Your task to perform on an android device: Open network settings Image 0: 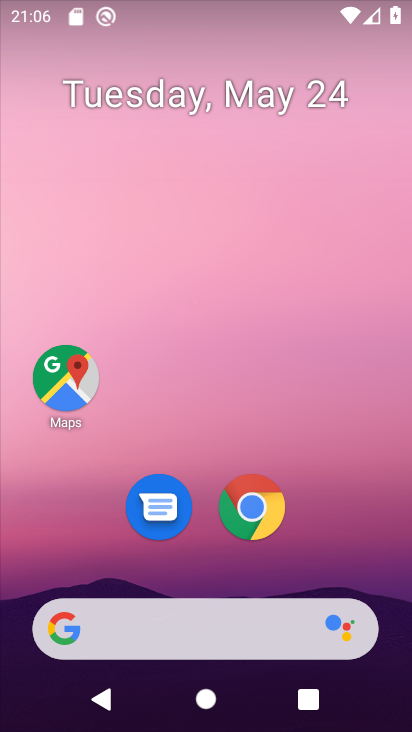
Step 0: drag from (219, 519) to (227, 19)
Your task to perform on an android device: Open network settings Image 1: 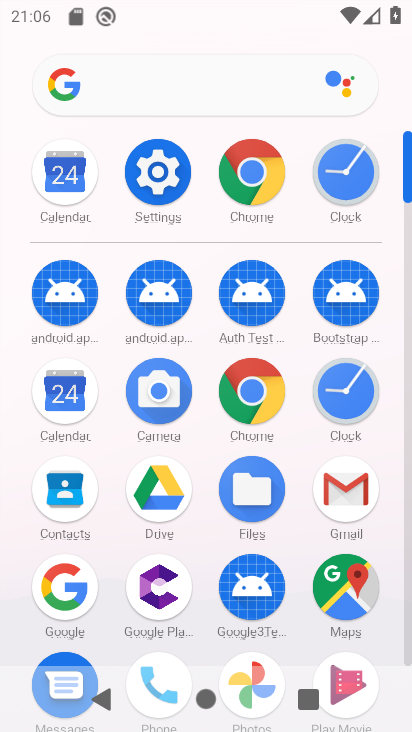
Step 1: click (160, 207)
Your task to perform on an android device: Open network settings Image 2: 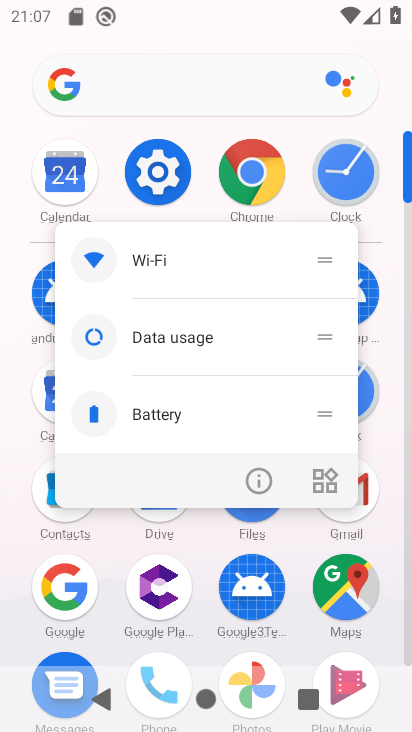
Step 2: click (278, 470)
Your task to perform on an android device: Open network settings Image 3: 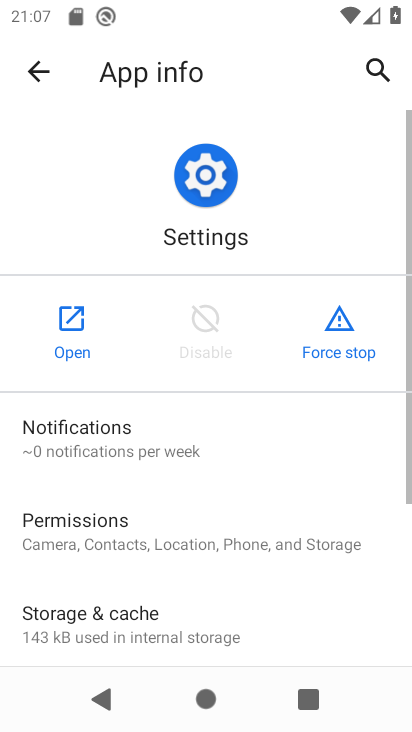
Step 3: click (39, 334)
Your task to perform on an android device: Open network settings Image 4: 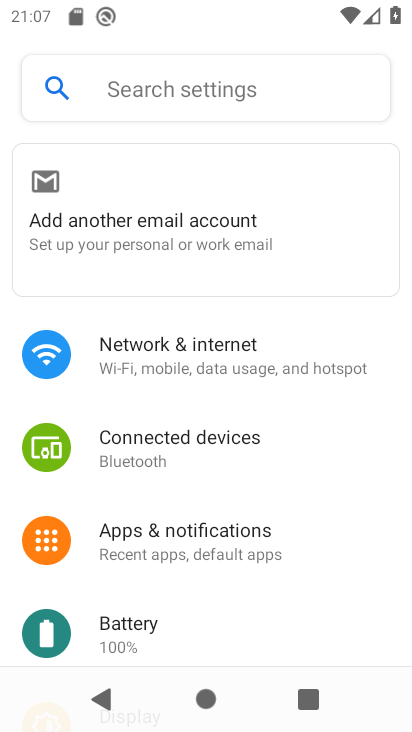
Step 4: click (170, 346)
Your task to perform on an android device: Open network settings Image 5: 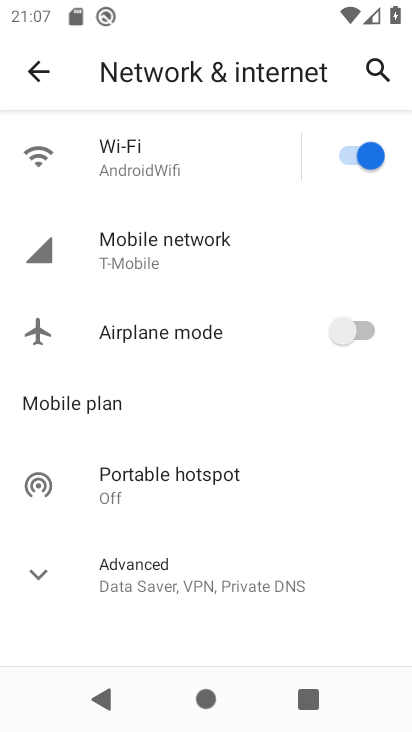
Step 5: drag from (198, 470) to (241, 377)
Your task to perform on an android device: Open network settings Image 6: 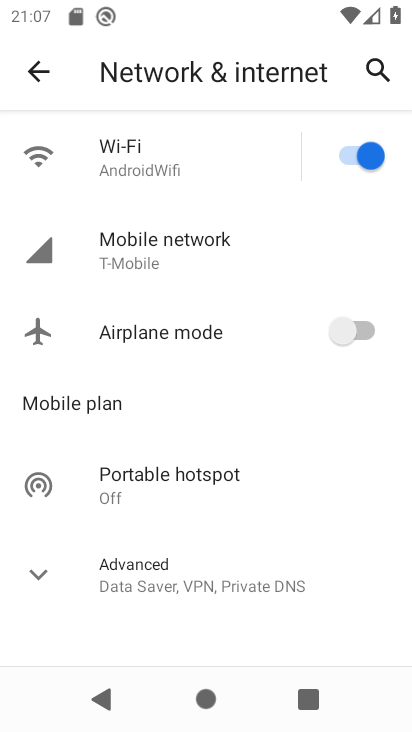
Step 6: click (198, 248)
Your task to perform on an android device: Open network settings Image 7: 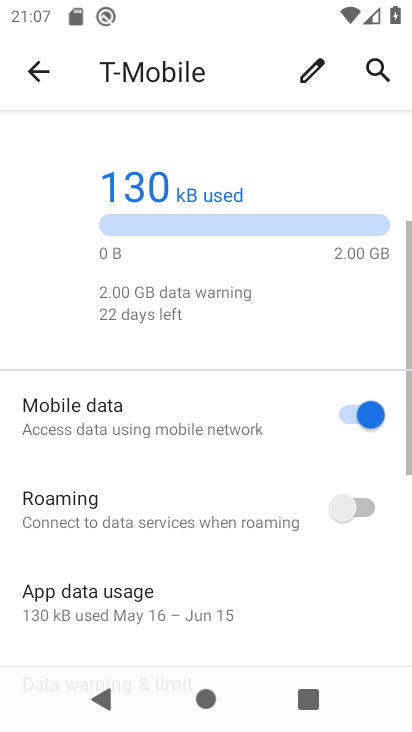
Step 7: task complete